Your task to perform on an android device: change the clock display to show seconds Image 0: 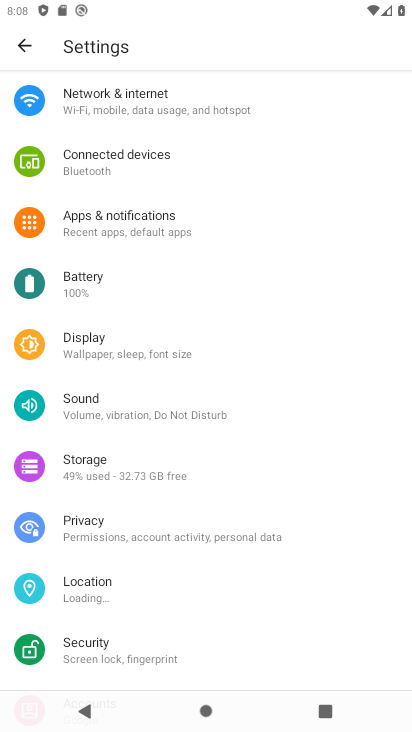
Step 0: press home button
Your task to perform on an android device: change the clock display to show seconds Image 1: 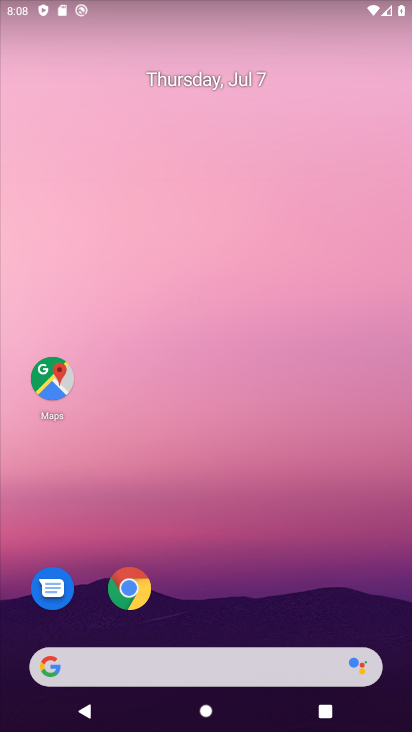
Step 1: drag from (250, 612) to (175, 223)
Your task to perform on an android device: change the clock display to show seconds Image 2: 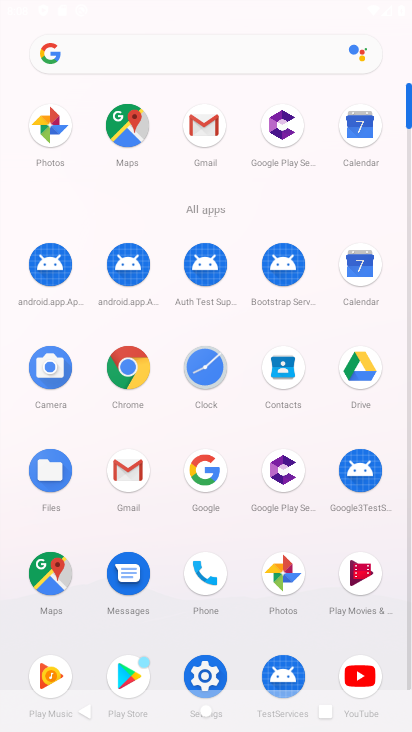
Step 2: click (205, 365)
Your task to perform on an android device: change the clock display to show seconds Image 3: 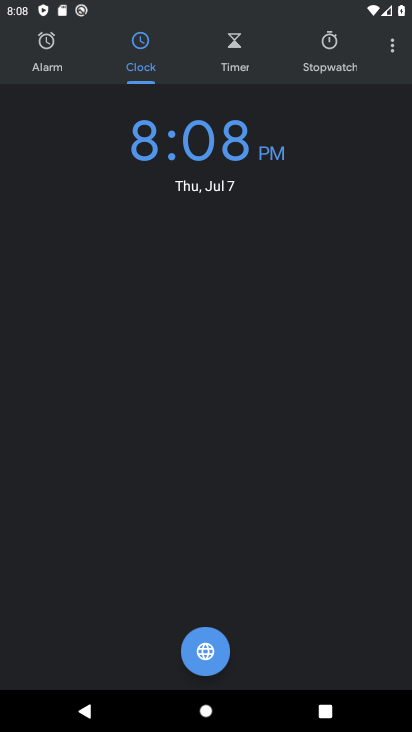
Step 3: click (393, 46)
Your task to perform on an android device: change the clock display to show seconds Image 4: 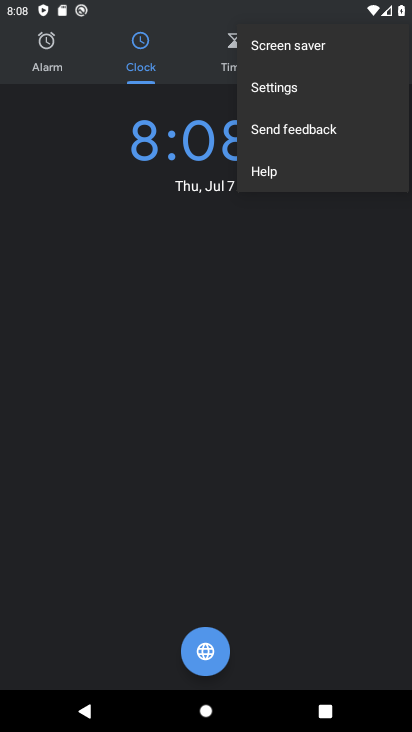
Step 4: click (293, 88)
Your task to perform on an android device: change the clock display to show seconds Image 5: 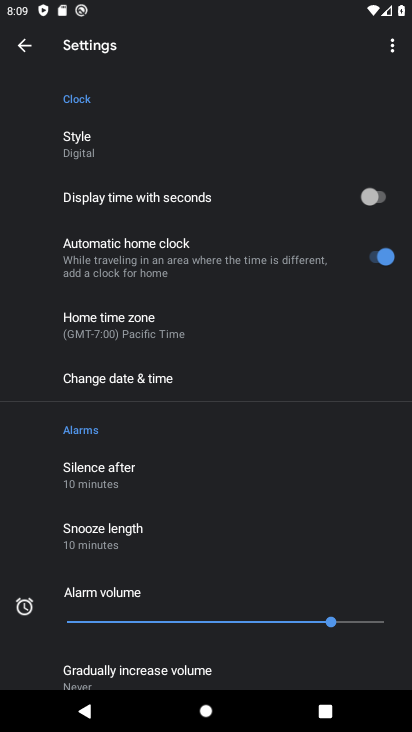
Step 5: click (373, 197)
Your task to perform on an android device: change the clock display to show seconds Image 6: 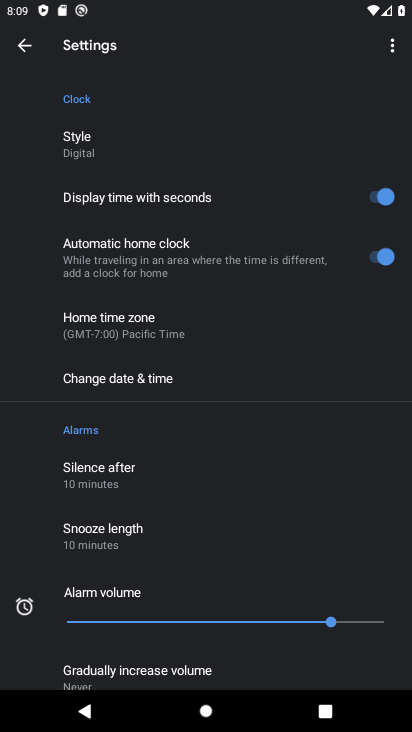
Step 6: task complete